Your task to perform on an android device: delete a single message in the gmail app Image 0: 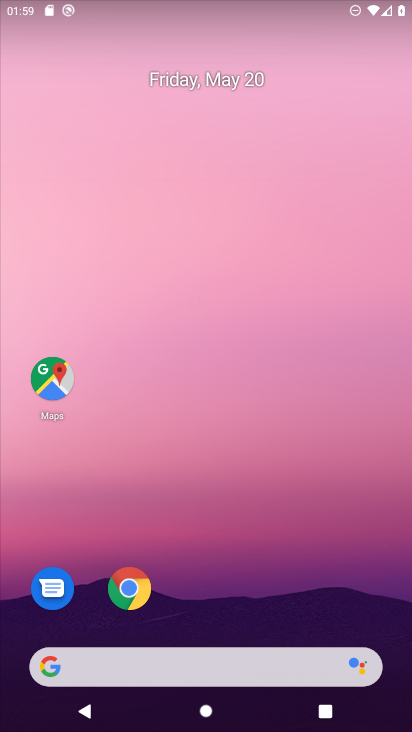
Step 0: drag from (395, 617) to (334, 47)
Your task to perform on an android device: delete a single message in the gmail app Image 1: 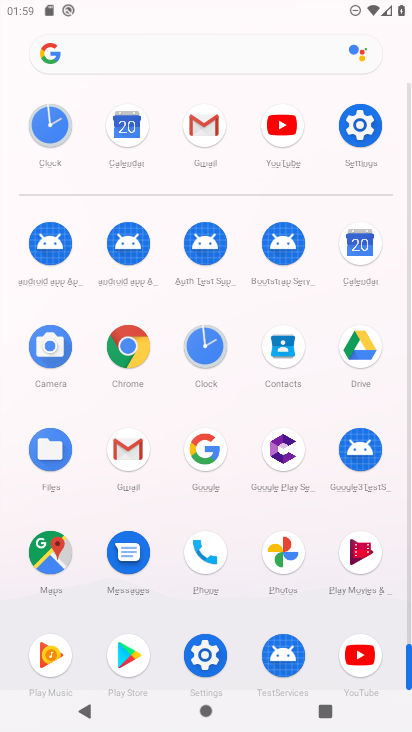
Step 1: click (123, 448)
Your task to perform on an android device: delete a single message in the gmail app Image 2: 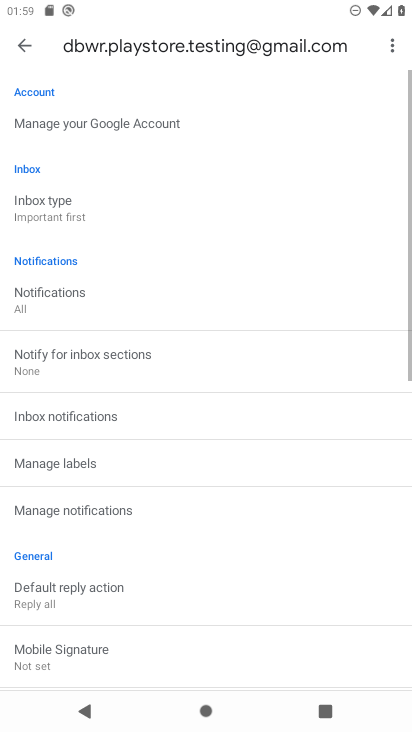
Step 2: click (124, 441)
Your task to perform on an android device: delete a single message in the gmail app Image 3: 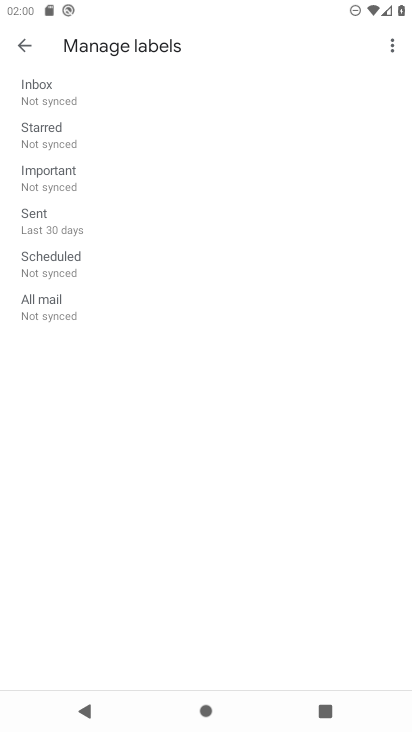
Step 3: press home button
Your task to perform on an android device: delete a single message in the gmail app Image 4: 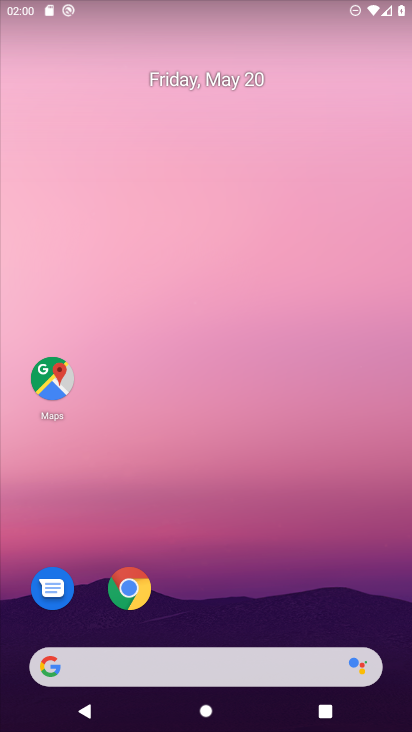
Step 4: drag from (388, 619) to (338, 140)
Your task to perform on an android device: delete a single message in the gmail app Image 5: 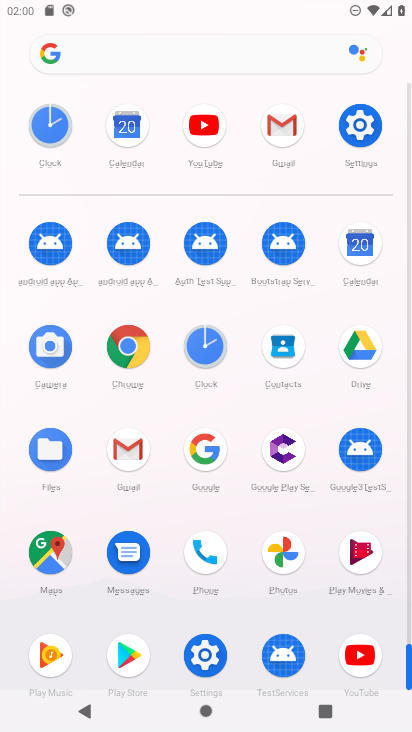
Step 5: click (120, 445)
Your task to perform on an android device: delete a single message in the gmail app Image 6: 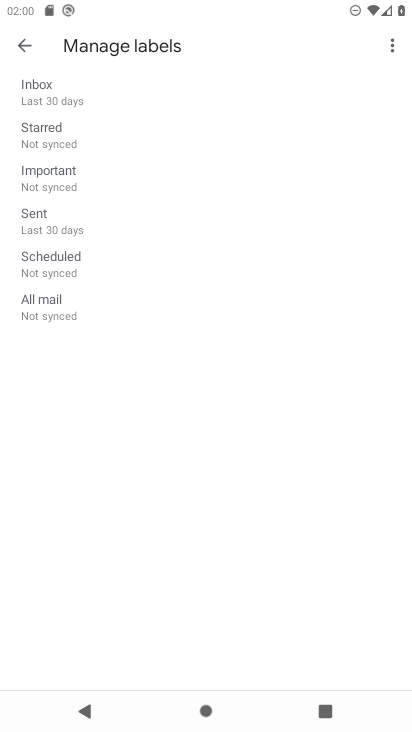
Step 6: press back button
Your task to perform on an android device: delete a single message in the gmail app Image 7: 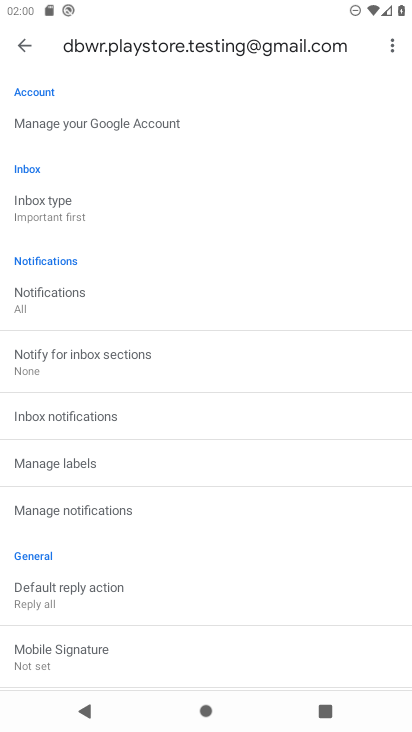
Step 7: press back button
Your task to perform on an android device: delete a single message in the gmail app Image 8: 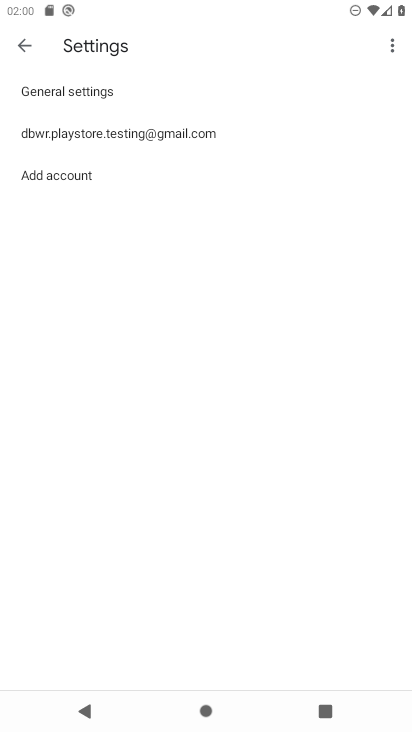
Step 8: press back button
Your task to perform on an android device: delete a single message in the gmail app Image 9: 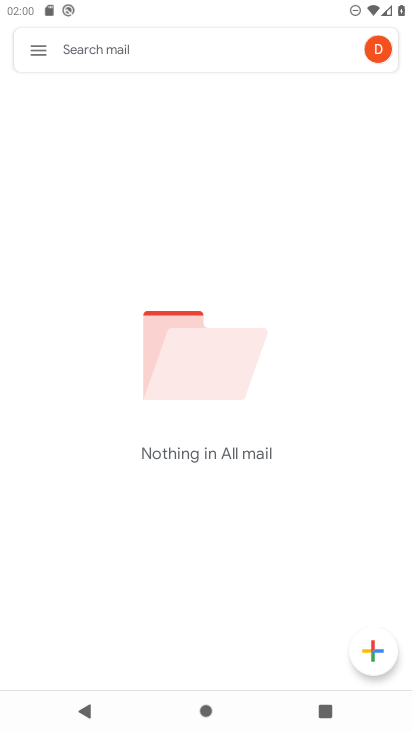
Step 9: click (33, 47)
Your task to perform on an android device: delete a single message in the gmail app Image 10: 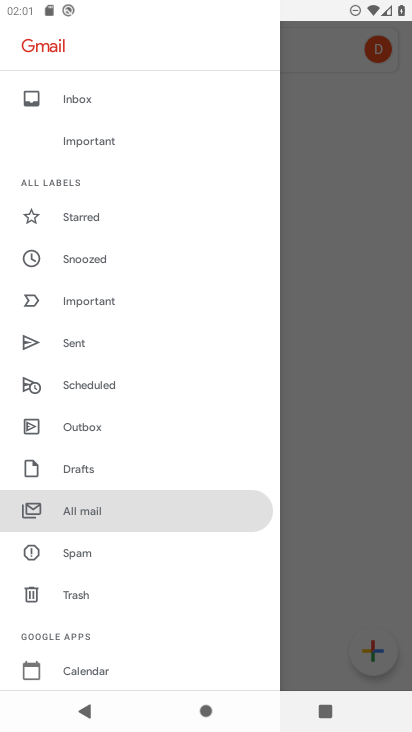
Step 10: click (163, 509)
Your task to perform on an android device: delete a single message in the gmail app Image 11: 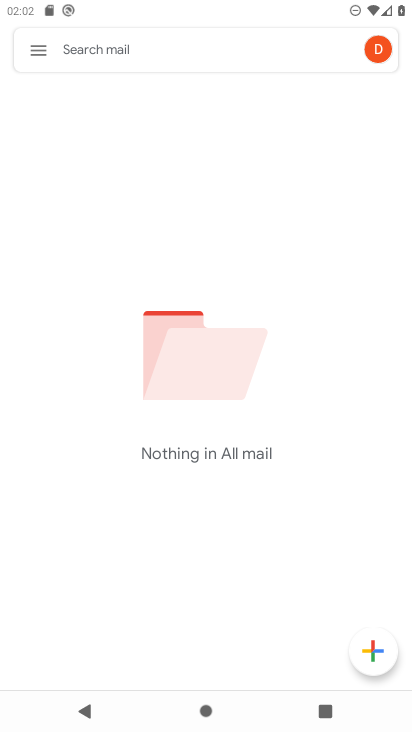
Step 11: task complete